Your task to perform on an android device: remove spam from my inbox in the gmail app Image 0: 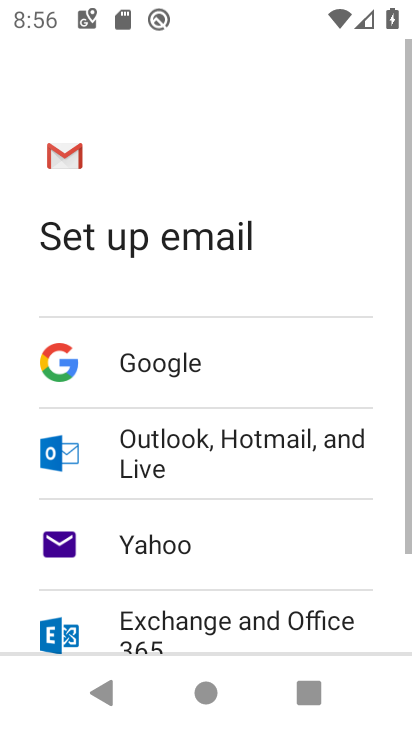
Step 0: press home button
Your task to perform on an android device: remove spam from my inbox in the gmail app Image 1: 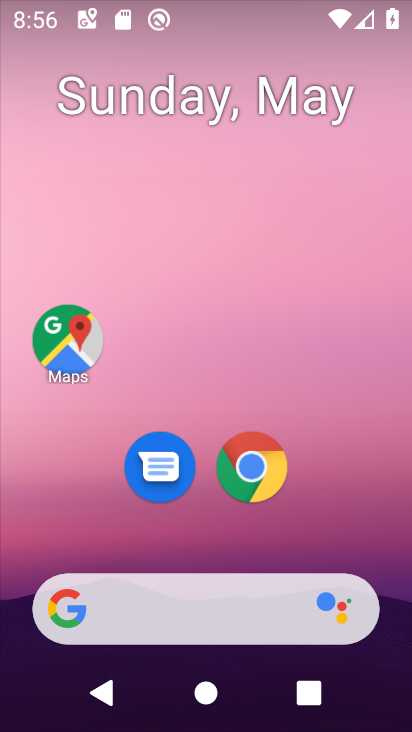
Step 1: drag from (347, 542) to (346, 0)
Your task to perform on an android device: remove spam from my inbox in the gmail app Image 2: 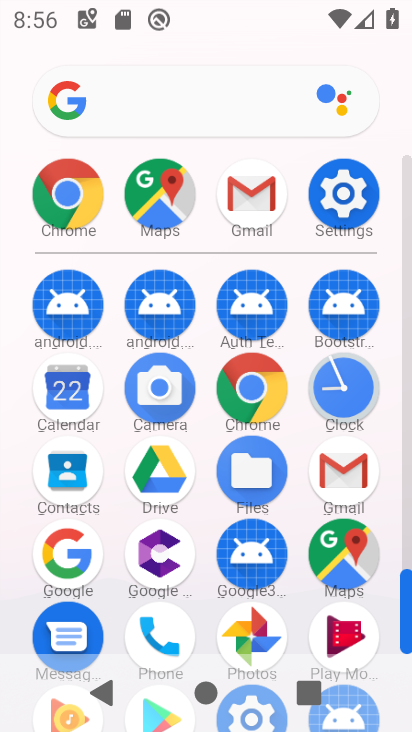
Step 2: click (337, 483)
Your task to perform on an android device: remove spam from my inbox in the gmail app Image 3: 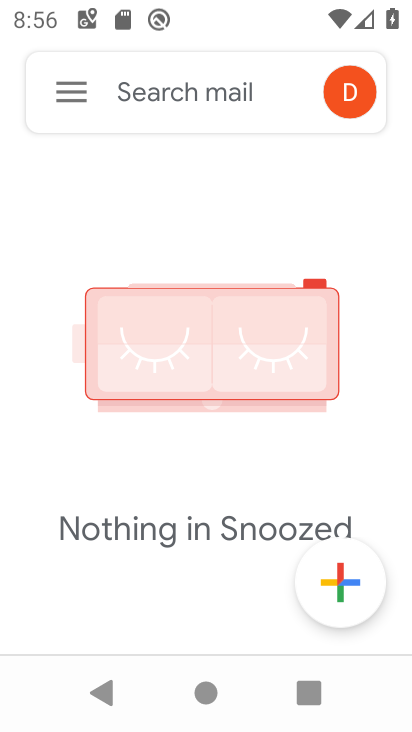
Step 3: click (66, 105)
Your task to perform on an android device: remove spam from my inbox in the gmail app Image 4: 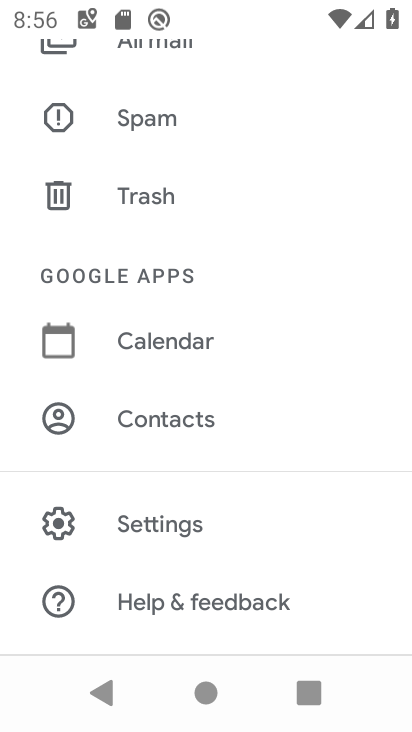
Step 4: drag from (226, 239) to (243, 532)
Your task to perform on an android device: remove spam from my inbox in the gmail app Image 5: 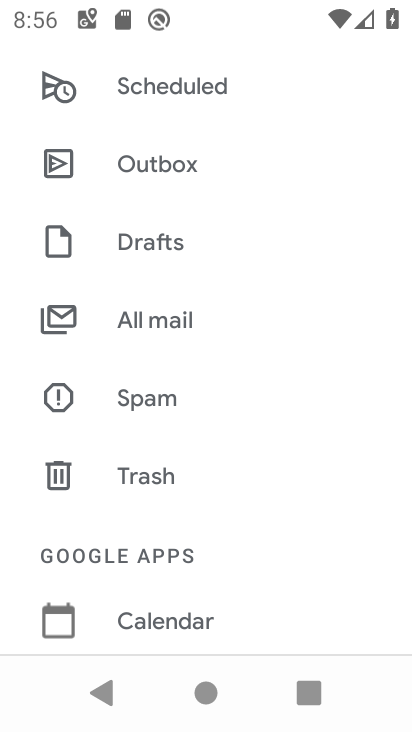
Step 5: click (173, 400)
Your task to perform on an android device: remove spam from my inbox in the gmail app Image 6: 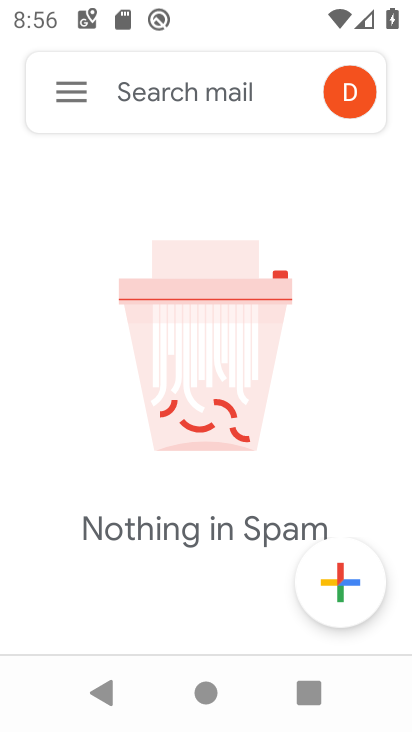
Step 6: click (64, 102)
Your task to perform on an android device: remove spam from my inbox in the gmail app Image 7: 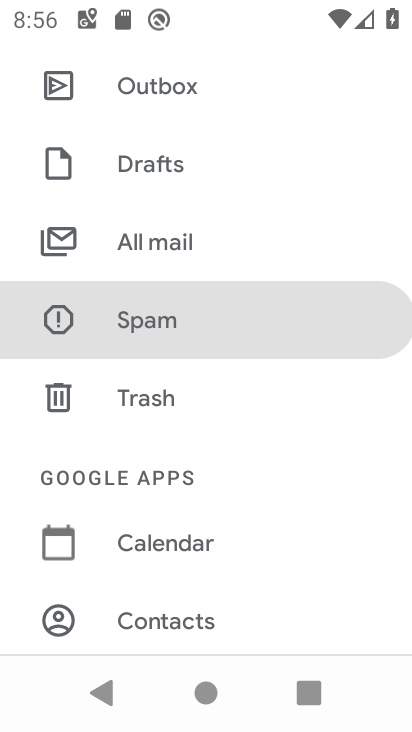
Step 7: click (305, 321)
Your task to perform on an android device: remove spam from my inbox in the gmail app Image 8: 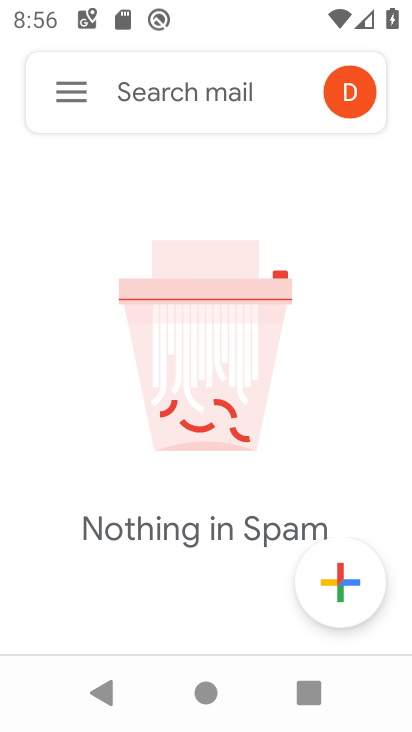
Step 8: task complete